Your task to perform on an android device: show emergency info Image 0: 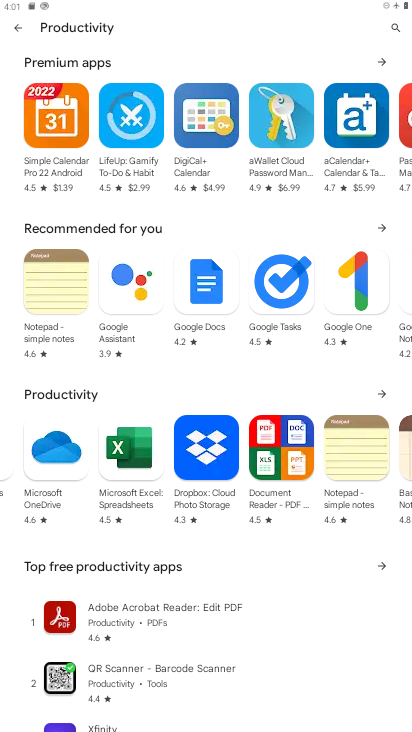
Step 0: press home button
Your task to perform on an android device: show emergency info Image 1: 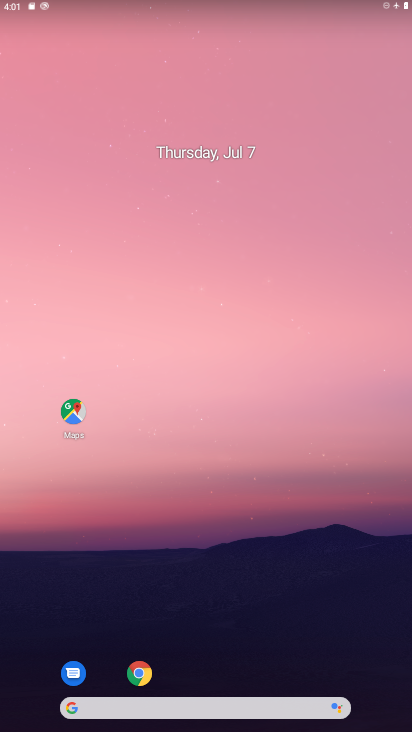
Step 1: drag from (232, 126) to (232, 49)
Your task to perform on an android device: show emergency info Image 2: 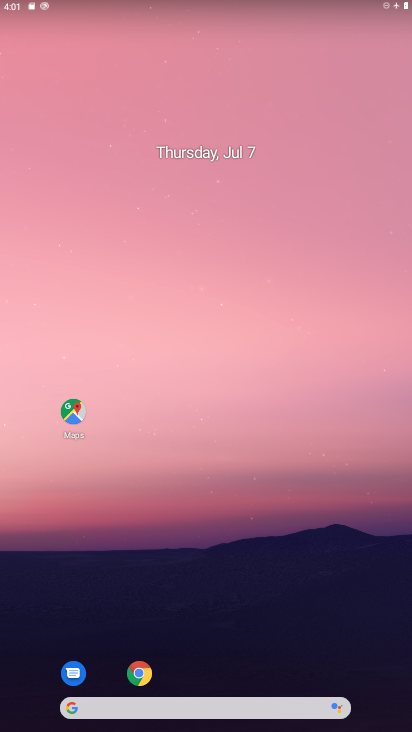
Step 2: drag from (229, 661) to (178, 71)
Your task to perform on an android device: show emergency info Image 3: 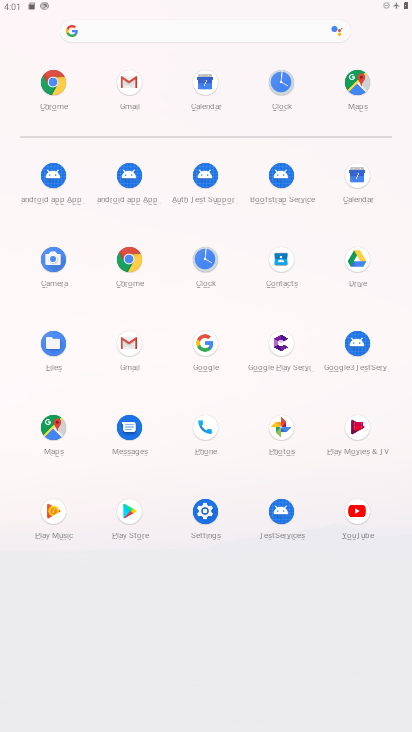
Step 3: click (201, 514)
Your task to perform on an android device: show emergency info Image 4: 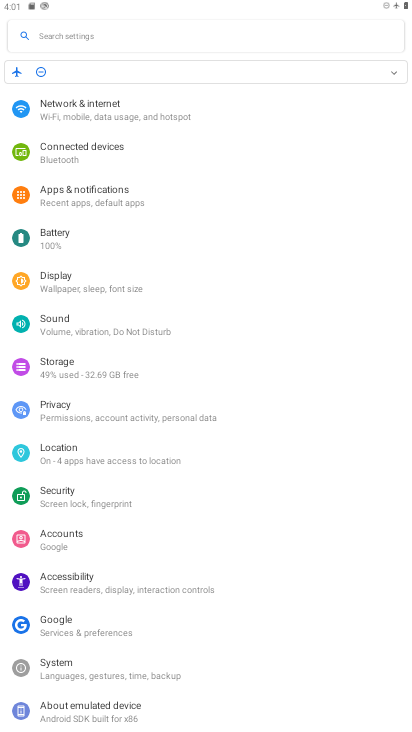
Step 4: click (140, 704)
Your task to perform on an android device: show emergency info Image 5: 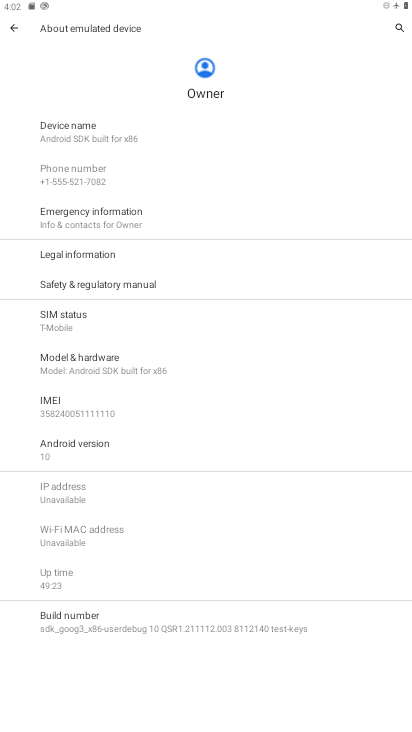
Step 5: click (104, 217)
Your task to perform on an android device: show emergency info Image 6: 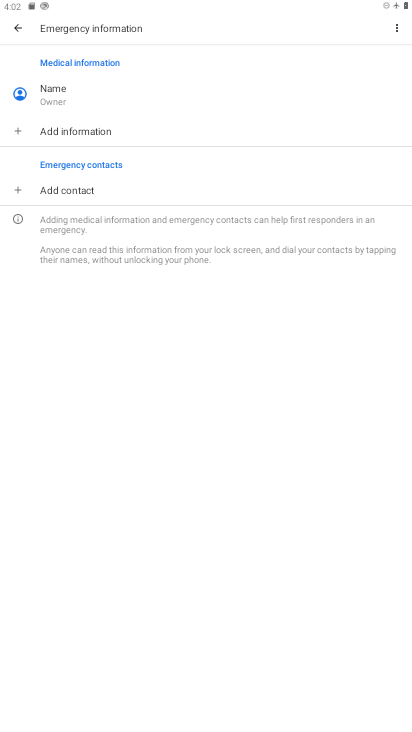
Step 6: task complete